Your task to perform on an android device: Open Youtube and go to "Your channel" Image 0: 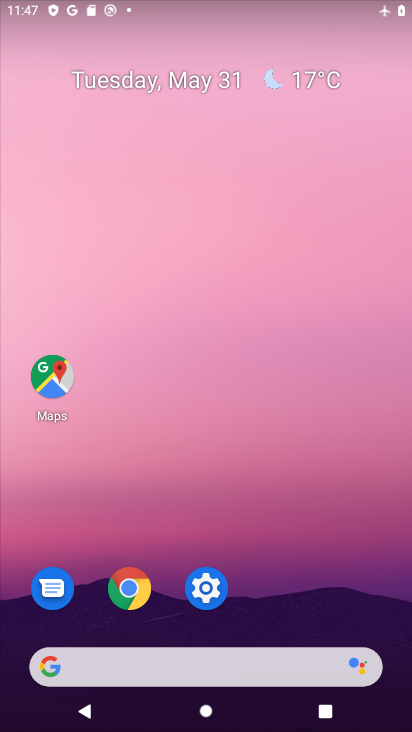
Step 0: drag from (244, 690) to (212, 122)
Your task to perform on an android device: Open Youtube and go to "Your channel" Image 1: 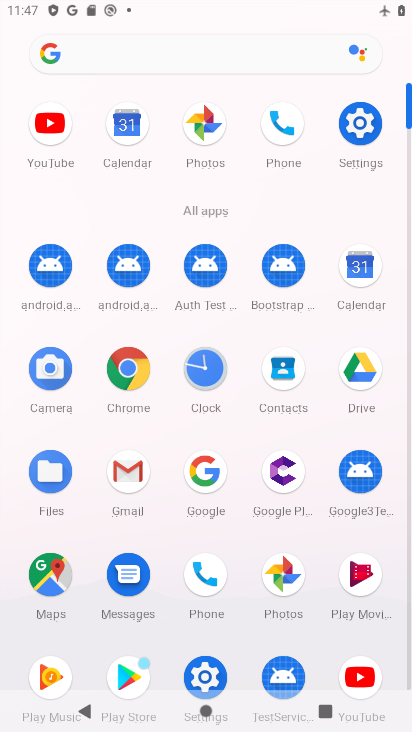
Step 1: click (358, 687)
Your task to perform on an android device: Open Youtube and go to "Your channel" Image 2: 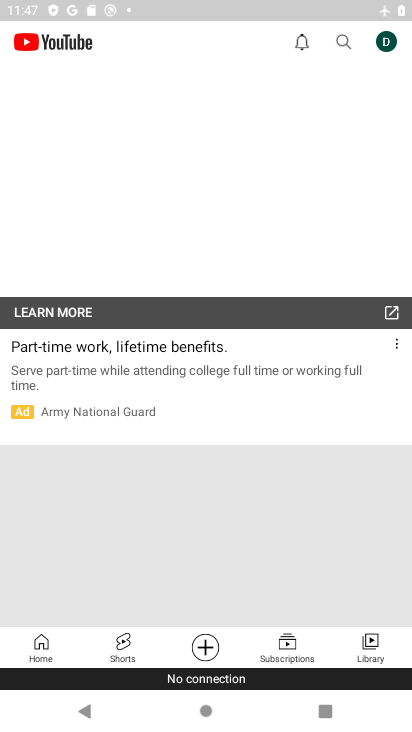
Step 2: click (393, 40)
Your task to perform on an android device: Open Youtube and go to "Your channel" Image 3: 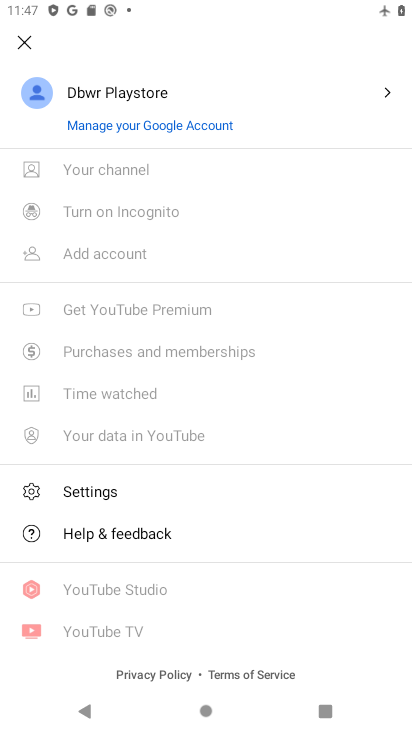
Step 3: click (69, 173)
Your task to perform on an android device: Open Youtube and go to "Your channel" Image 4: 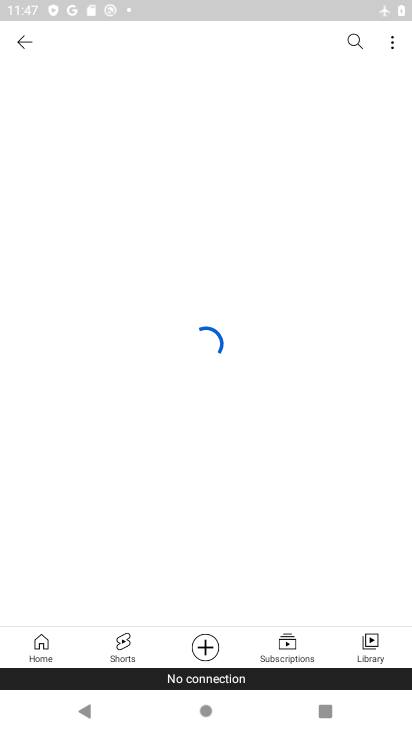
Step 4: task complete